Your task to perform on an android device: change the upload size in google photos Image 0: 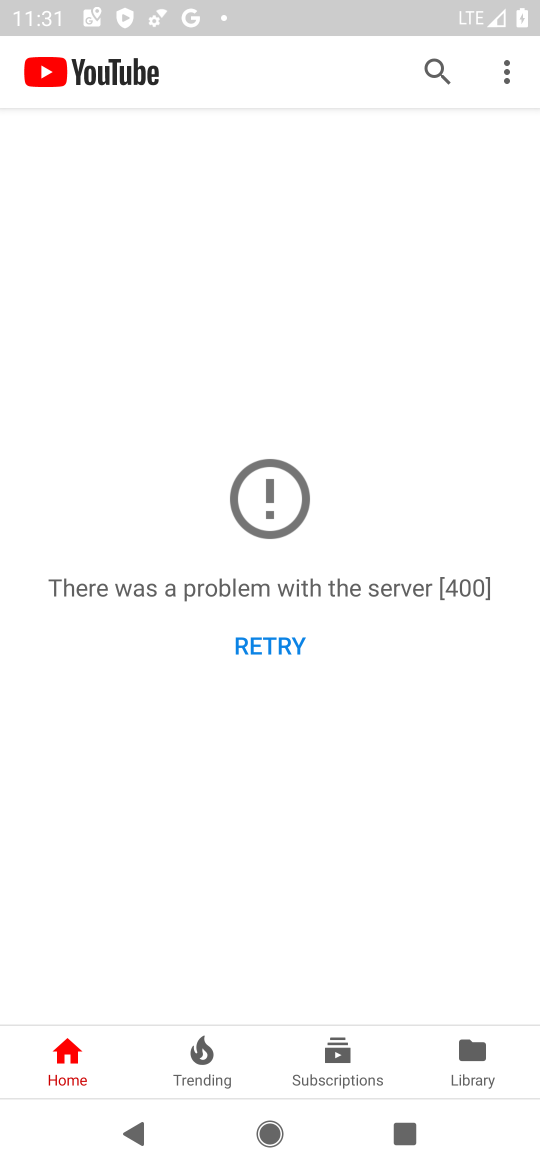
Step 0: press home button
Your task to perform on an android device: change the upload size in google photos Image 1: 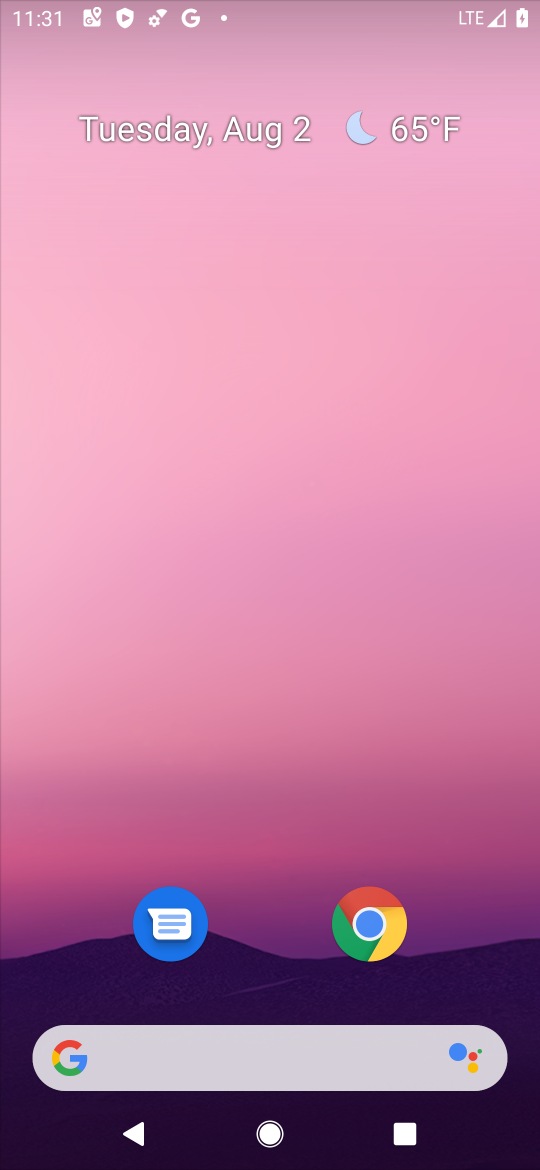
Step 1: drag from (347, 1013) to (256, 432)
Your task to perform on an android device: change the upload size in google photos Image 2: 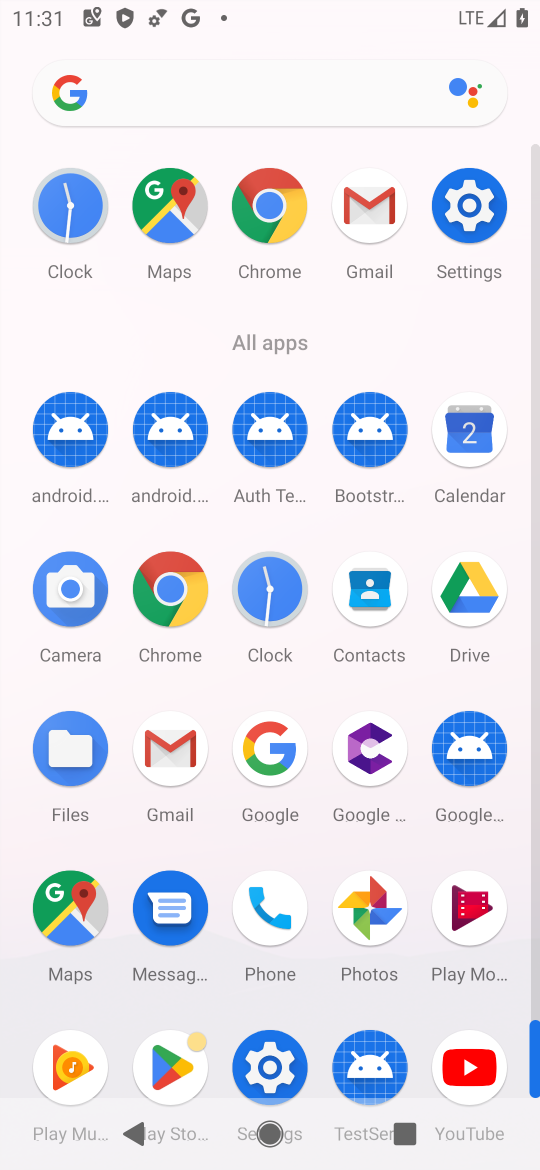
Step 2: click (354, 890)
Your task to perform on an android device: change the upload size in google photos Image 3: 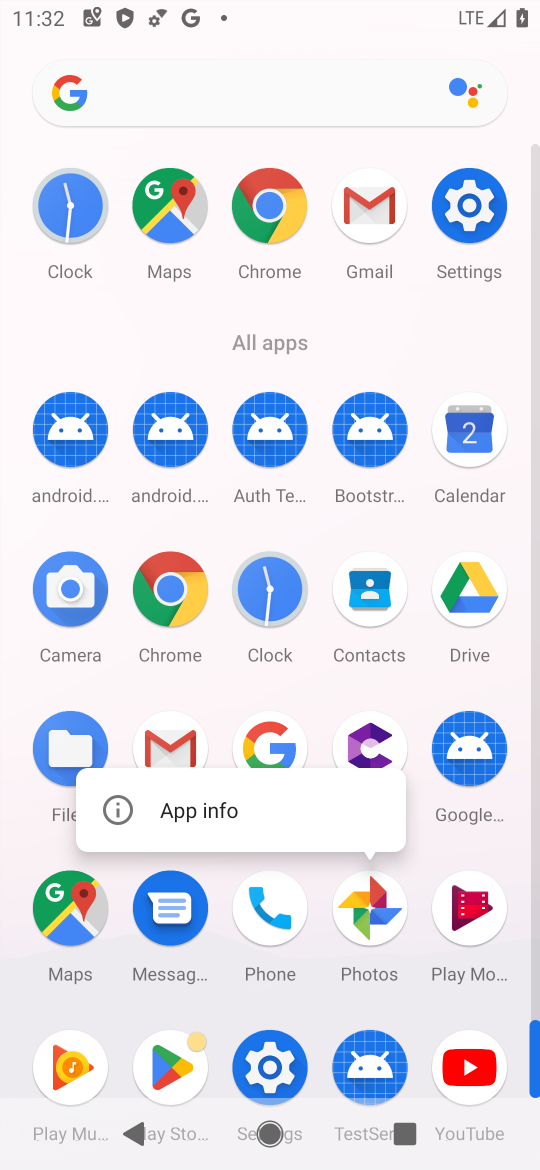
Step 3: click (367, 882)
Your task to perform on an android device: change the upload size in google photos Image 4: 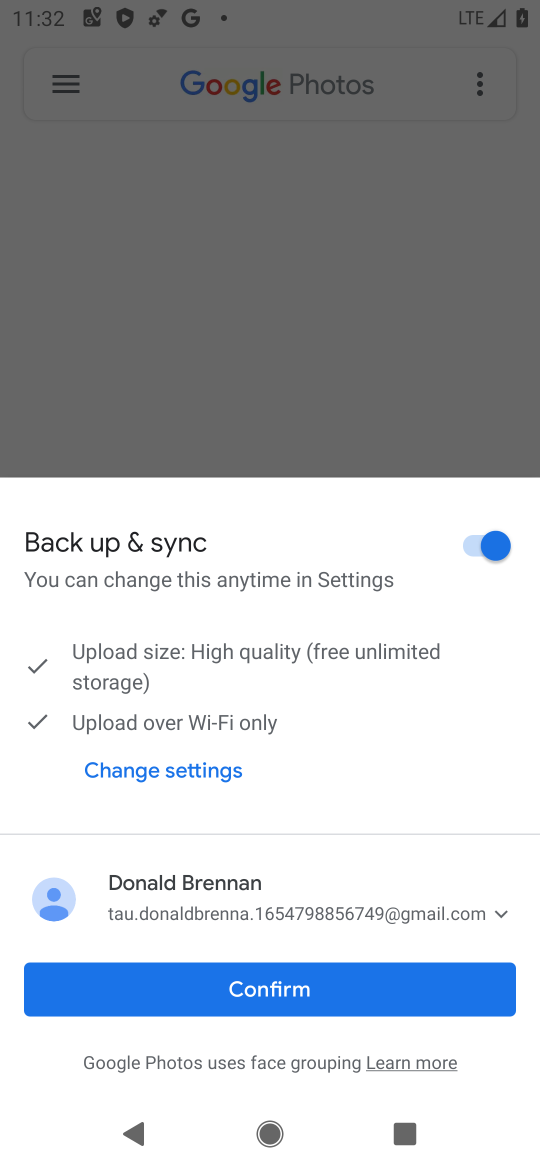
Step 4: click (280, 981)
Your task to perform on an android device: change the upload size in google photos Image 5: 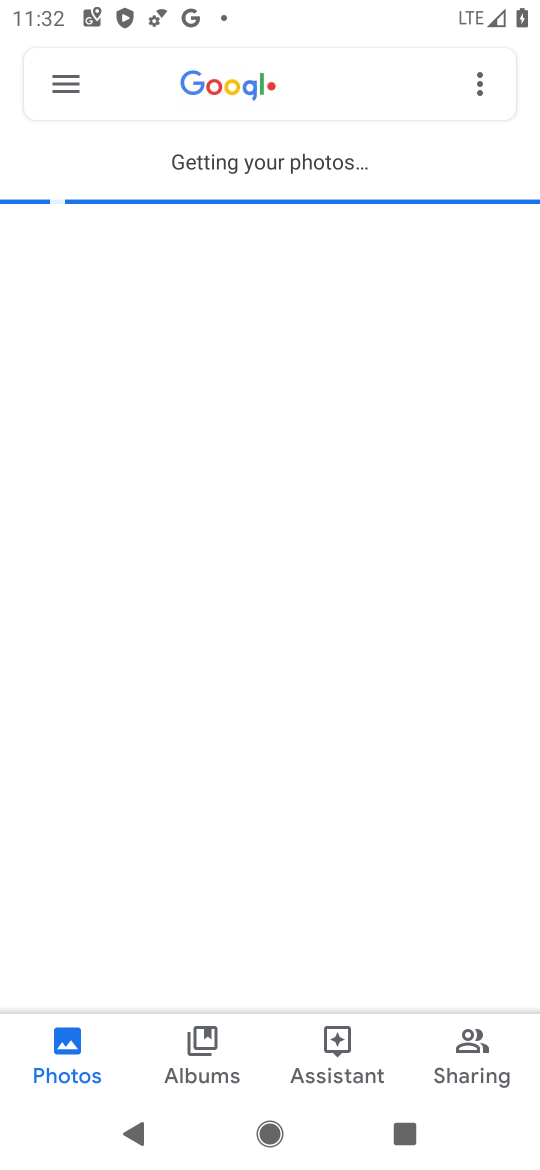
Step 5: click (58, 91)
Your task to perform on an android device: change the upload size in google photos Image 6: 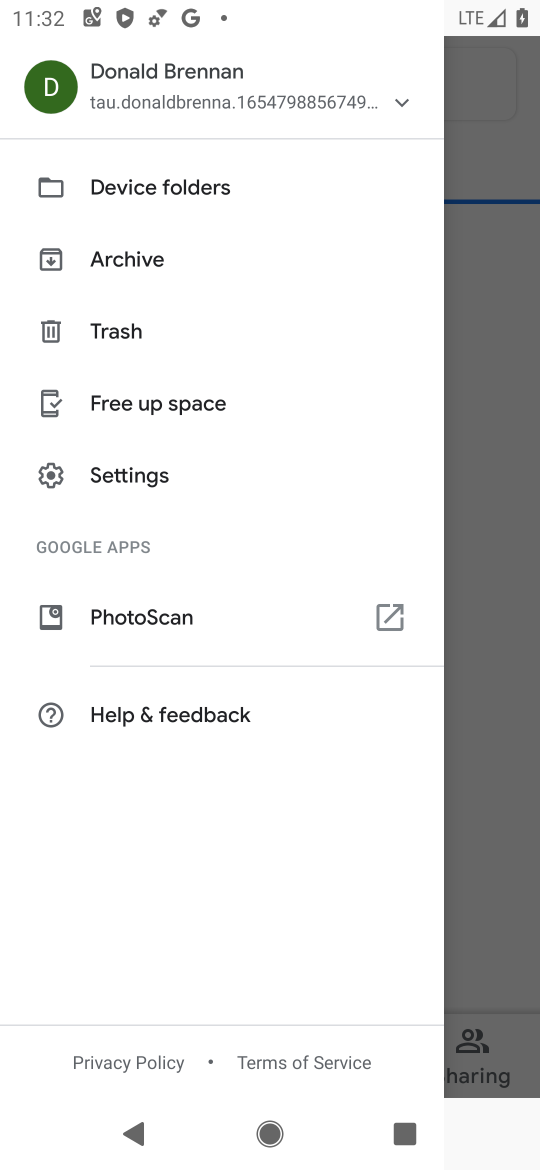
Step 6: click (128, 468)
Your task to perform on an android device: change the upload size in google photos Image 7: 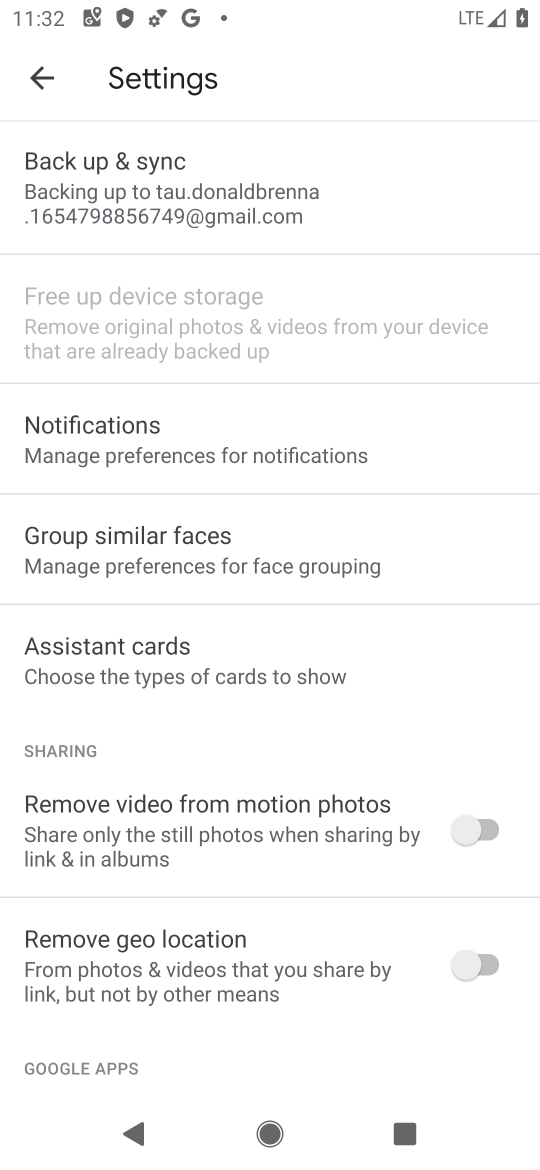
Step 7: click (155, 187)
Your task to perform on an android device: change the upload size in google photos Image 8: 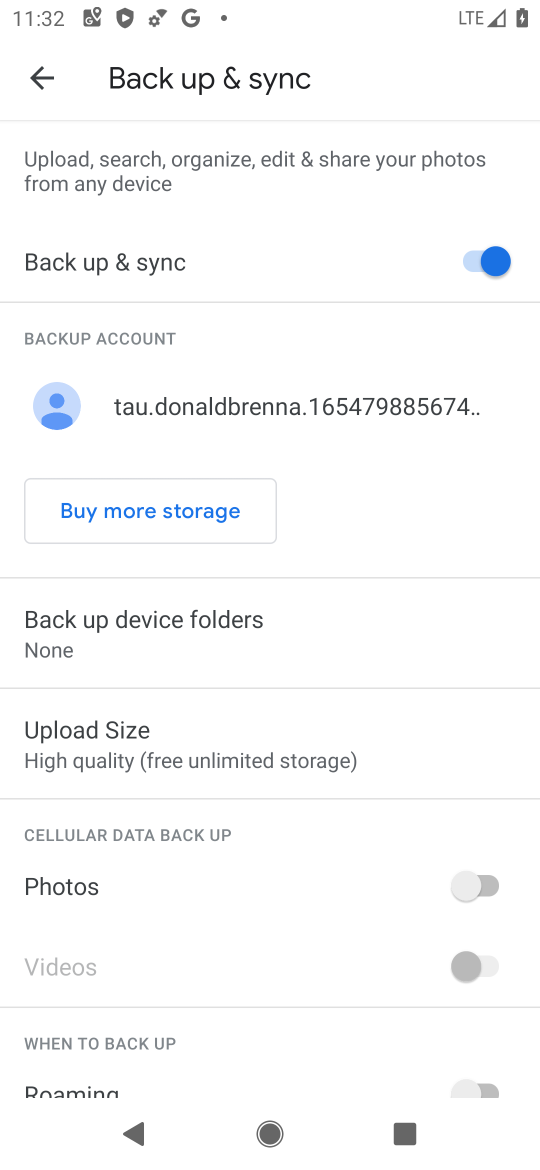
Step 8: click (186, 772)
Your task to perform on an android device: change the upload size in google photos Image 9: 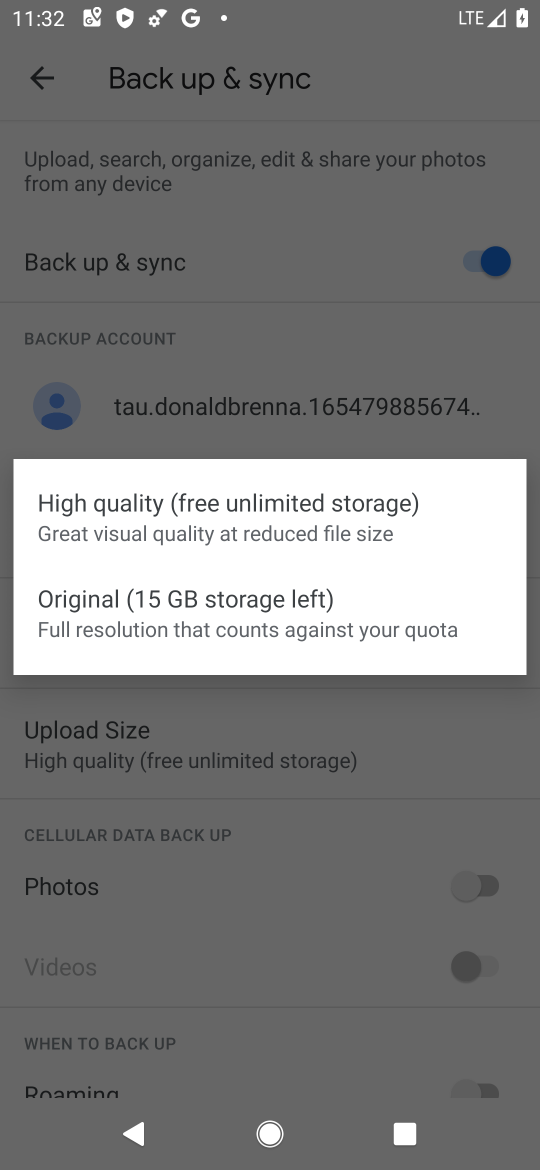
Step 9: click (145, 640)
Your task to perform on an android device: change the upload size in google photos Image 10: 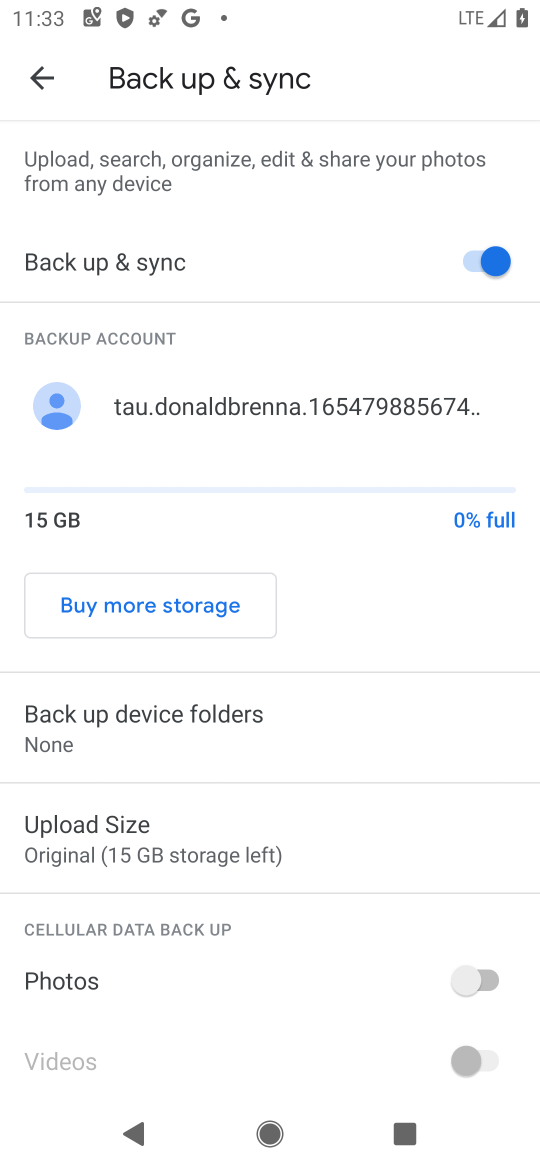
Step 10: task complete